Your task to perform on an android device: Open Wikipedia Image 0: 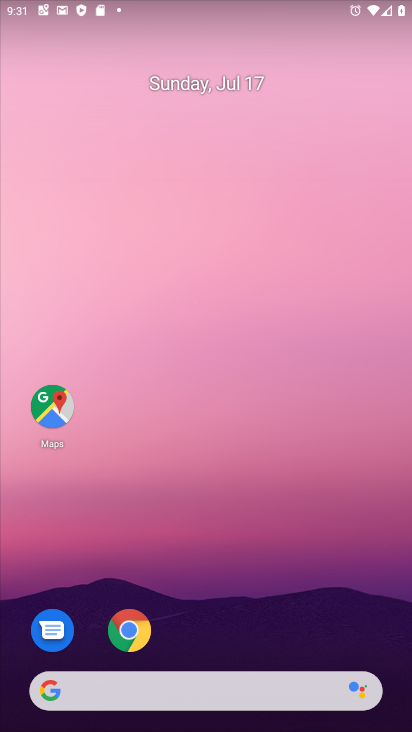
Step 0: drag from (323, 594) to (354, 102)
Your task to perform on an android device: Open Wikipedia Image 1: 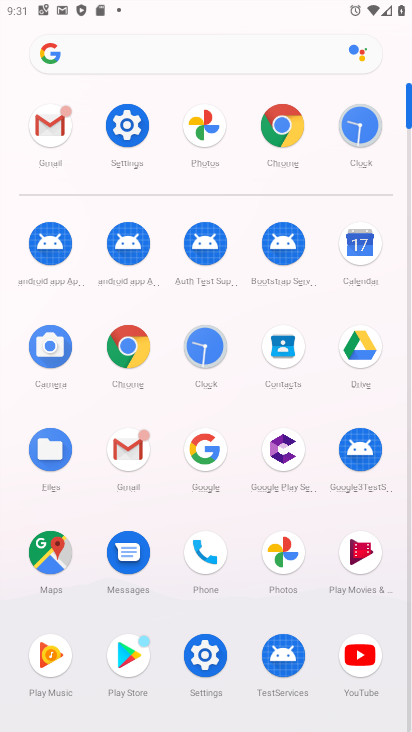
Step 1: click (284, 133)
Your task to perform on an android device: Open Wikipedia Image 2: 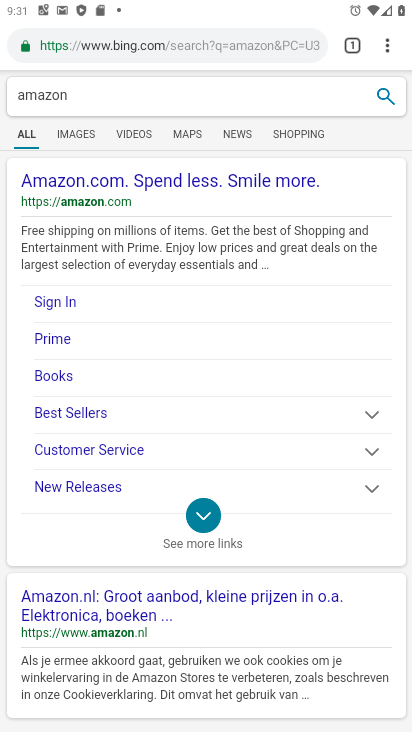
Step 2: click (262, 42)
Your task to perform on an android device: Open Wikipedia Image 3: 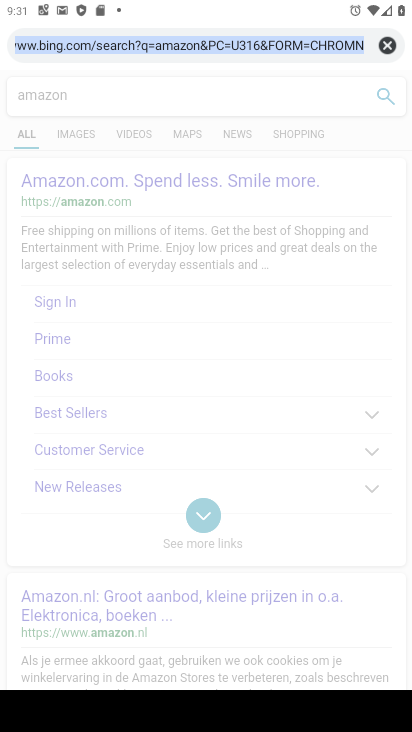
Step 3: type "wikipedia"
Your task to perform on an android device: Open Wikipedia Image 4: 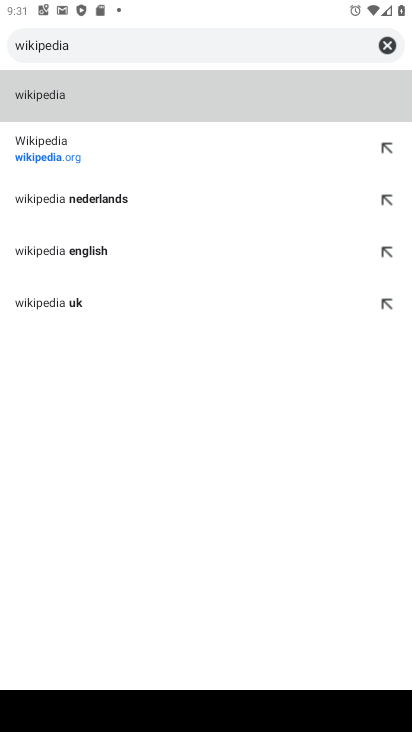
Step 4: click (246, 99)
Your task to perform on an android device: Open Wikipedia Image 5: 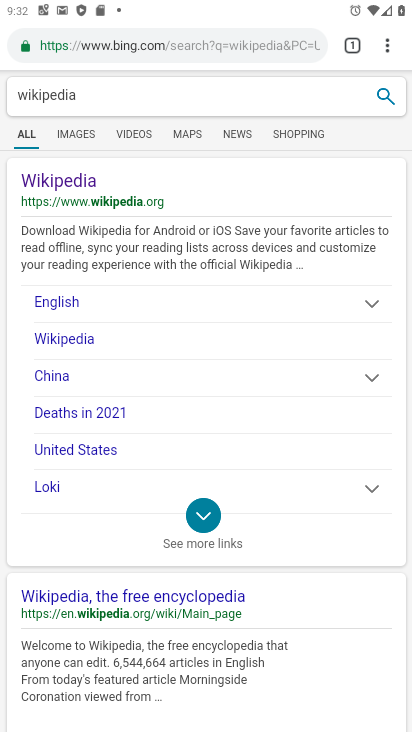
Step 5: task complete